Your task to perform on an android device: set an alarm Image 0: 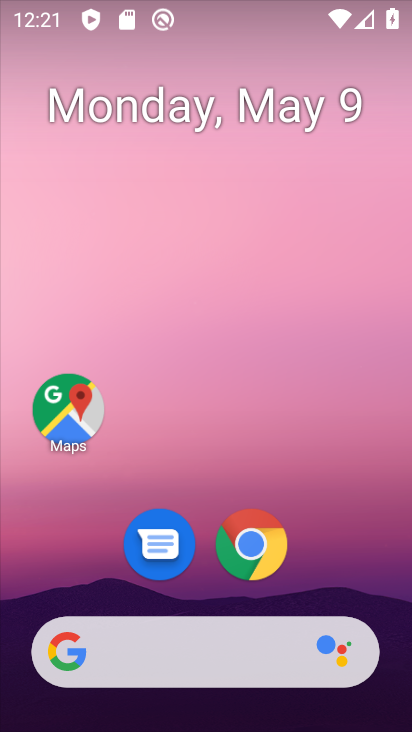
Step 0: drag from (143, 638) to (177, 108)
Your task to perform on an android device: set an alarm Image 1: 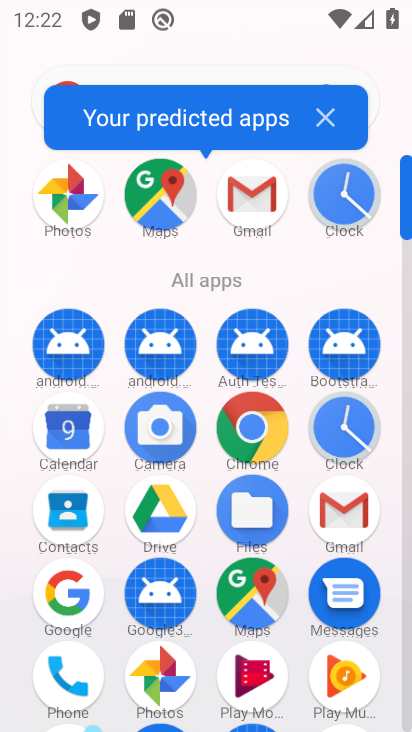
Step 1: click (356, 418)
Your task to perform on an android device: set an alarm Image 2: 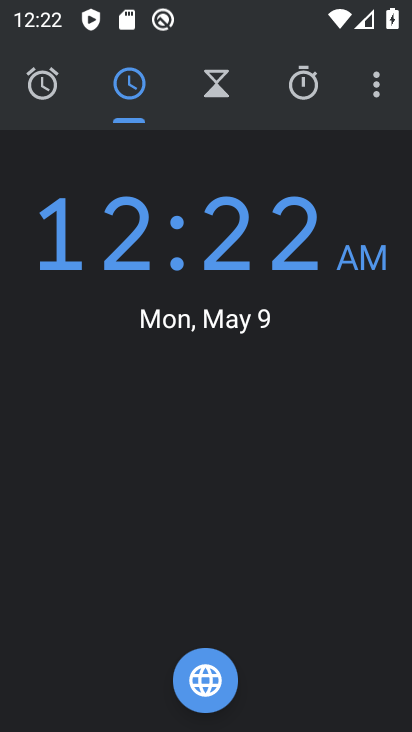
Step 2: click (41, 97)
Your task to perform on an android device: set an alarm Image 3: 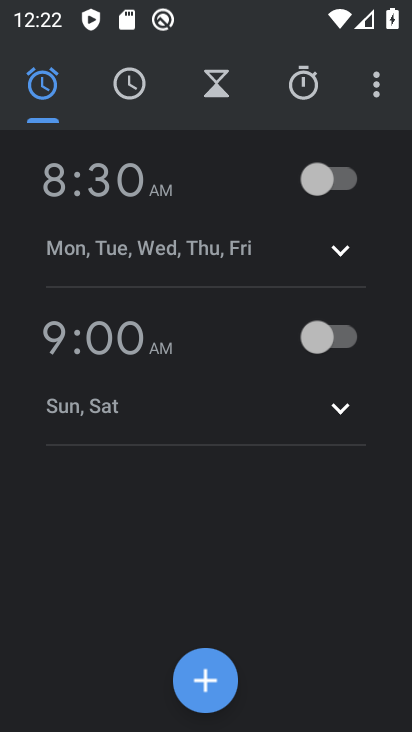
Step 3: click (212, 682)
Your task to perform on an android device: set an alarm Image 4: 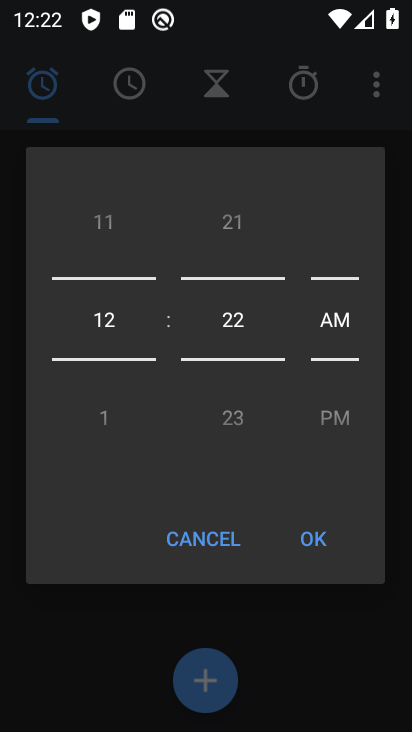
Step 4: drag from (128, 392) to (150, 3)
Your task to perform on an android device: set an alarm Image 5: 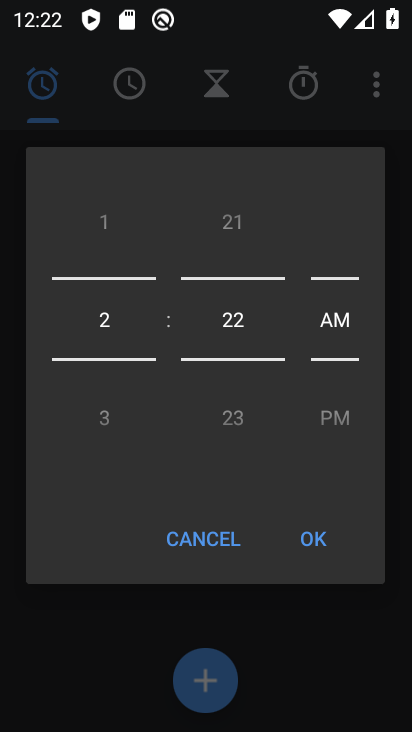
Step 5: click (307, 546)
Your task to perform on an android device: set an alarm Image 6: 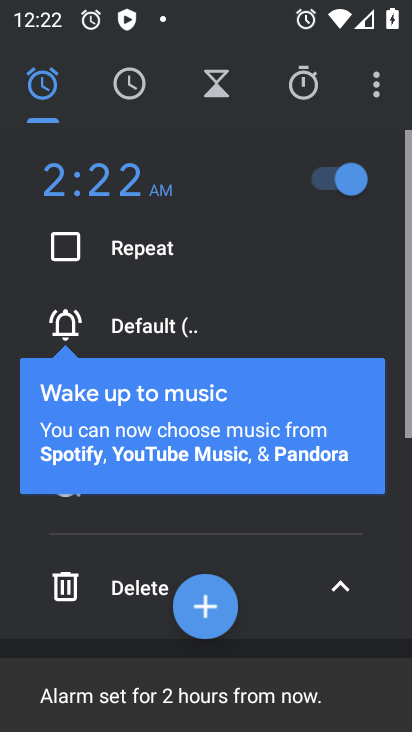
Step 6: task complete